Your task to perform on an android device: add a contact in the contacts app Image 0: 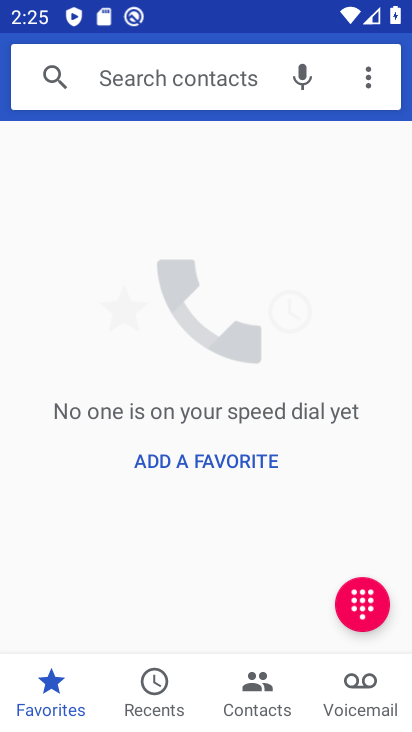
Step 0: press home button
Your task to perform on an android device: add a contact in the contacts app Image 1: 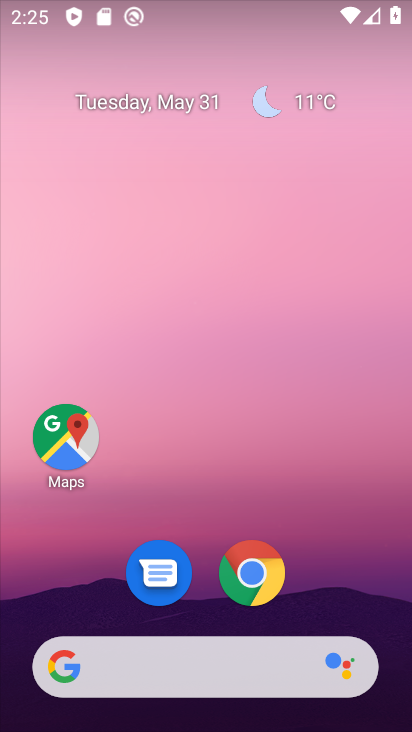
Step 1: drag from (378, 594) to (266, 112)
Your task to perform on an android device: add a contact in the contacts app Image 2: 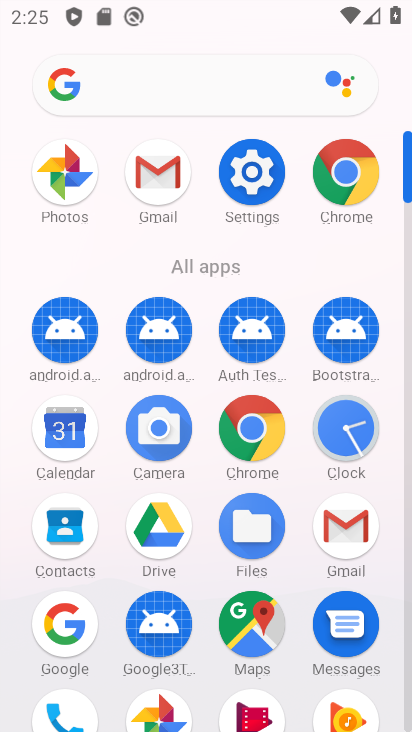
Step 2: click (55, 523)
Your task to perform on an android device: add a contact in the contacts app Image 3: 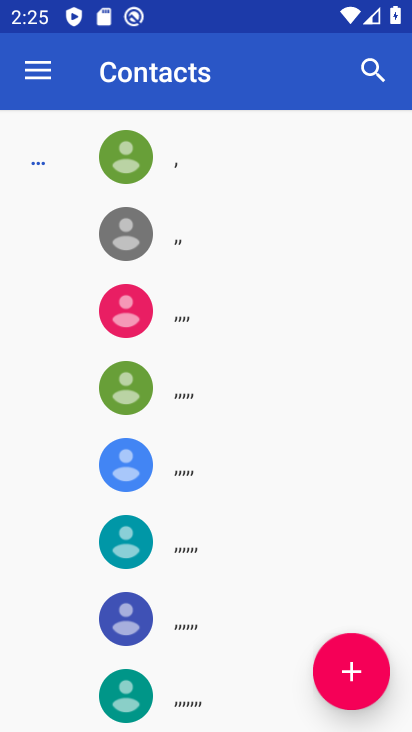
Step 3: click (352, 662)
Your task to perform on an android device: add a contact in the contacts app Image 4: 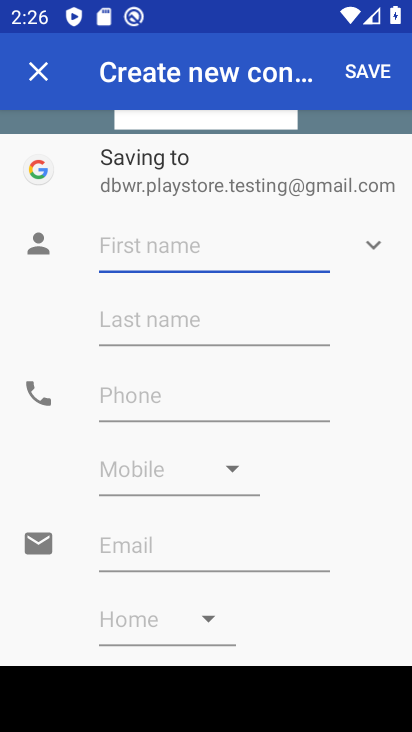
Step 4: type "bkhbkb"
Your task to perform on an android device: add a contact in the contacts app Image 5: 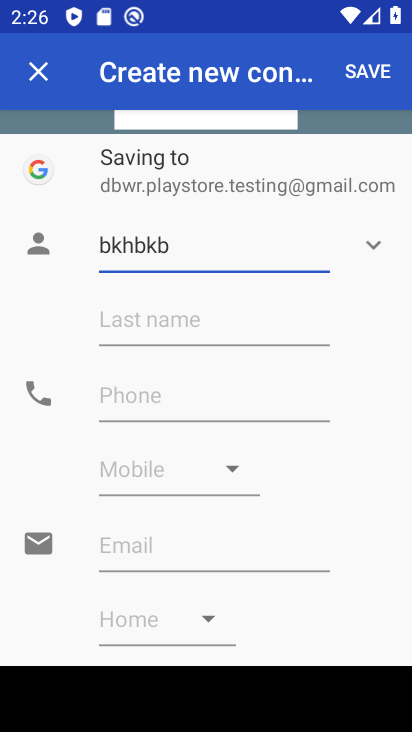
Step 5: click (301, 401)
Your task to perform on an android device: add a contact in the contacts app Image 6: 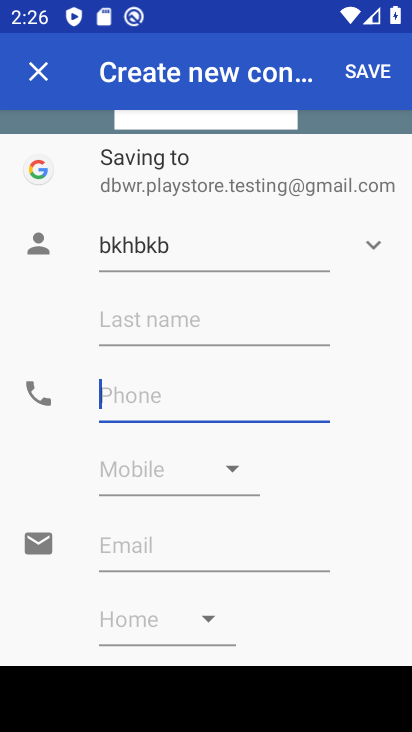
Step 6: type "678869769"
Your task to perform on an android device: add a contact in the contacts app Image 7: 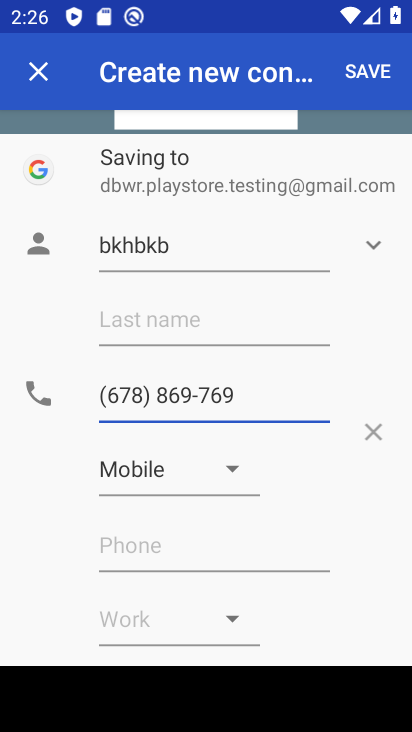
Step 7: click (360, 75)
Your task to perform on an android device: add a contact in the contacts app Image 8: 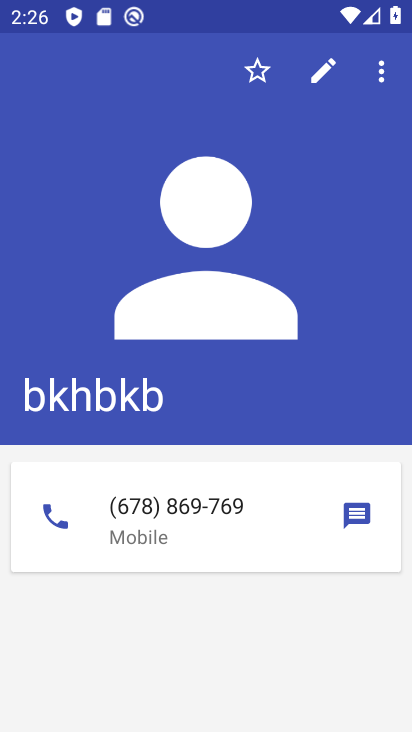
Step 8: task complete